Your task to perform on an android device: see creations saved in the google photos Image 0: 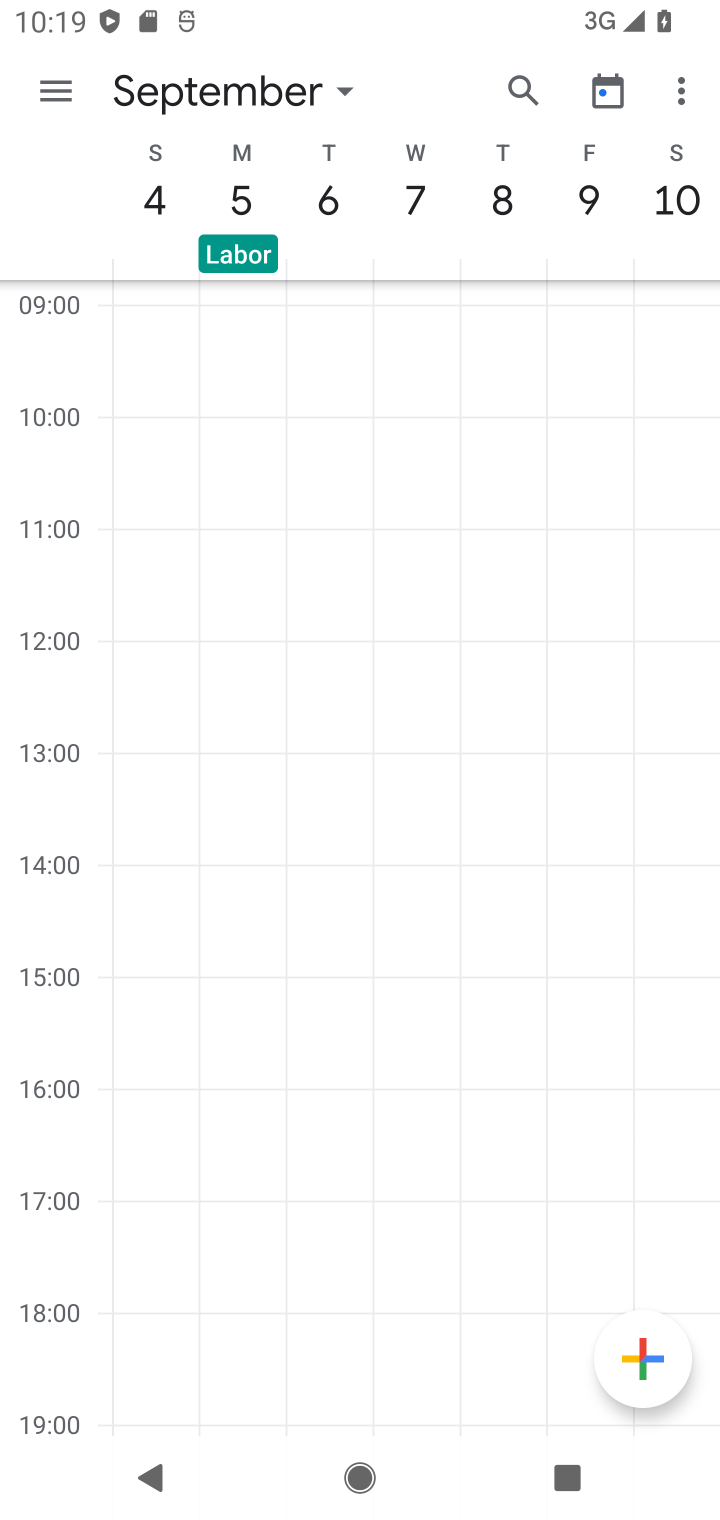
Step 0: press home button
Your task to perform on an android device: see creations saved in the google photos Image 1: 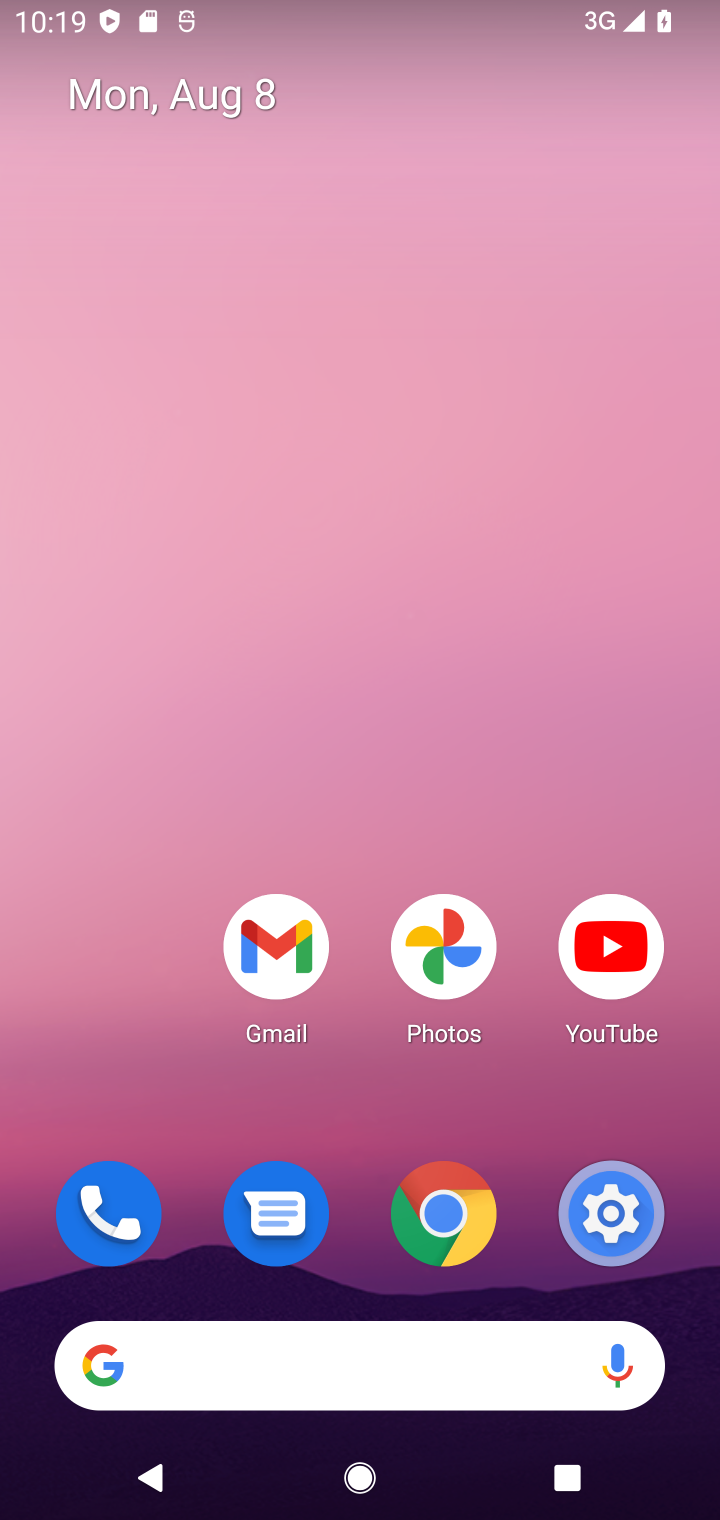
Step 1: drag from (449, 387) to (649, 85)
Your task to perform on an android device: see creations saved in the google photos Image 2: 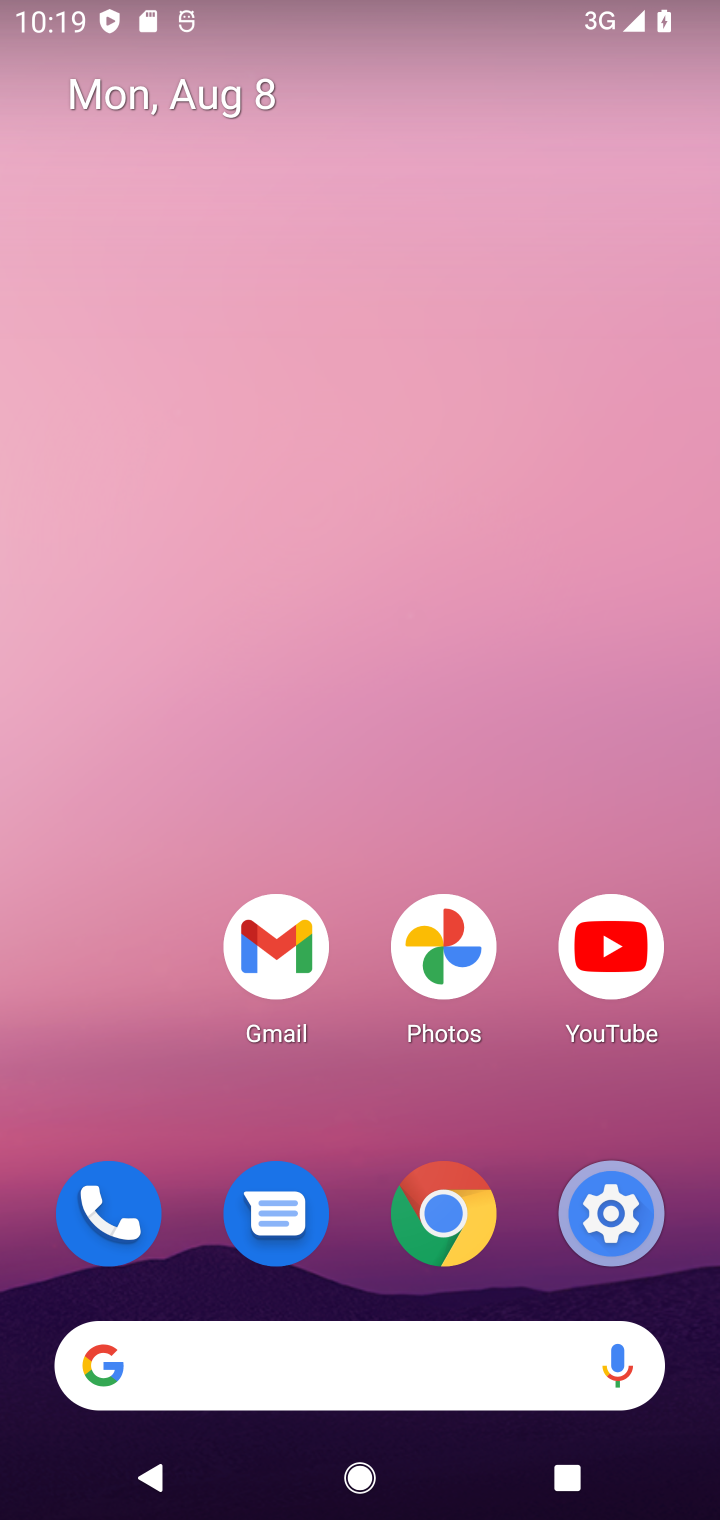
Step 2: click (443, 916)
Your task to perform on an android device: see creations saved in the google photos Image 3: 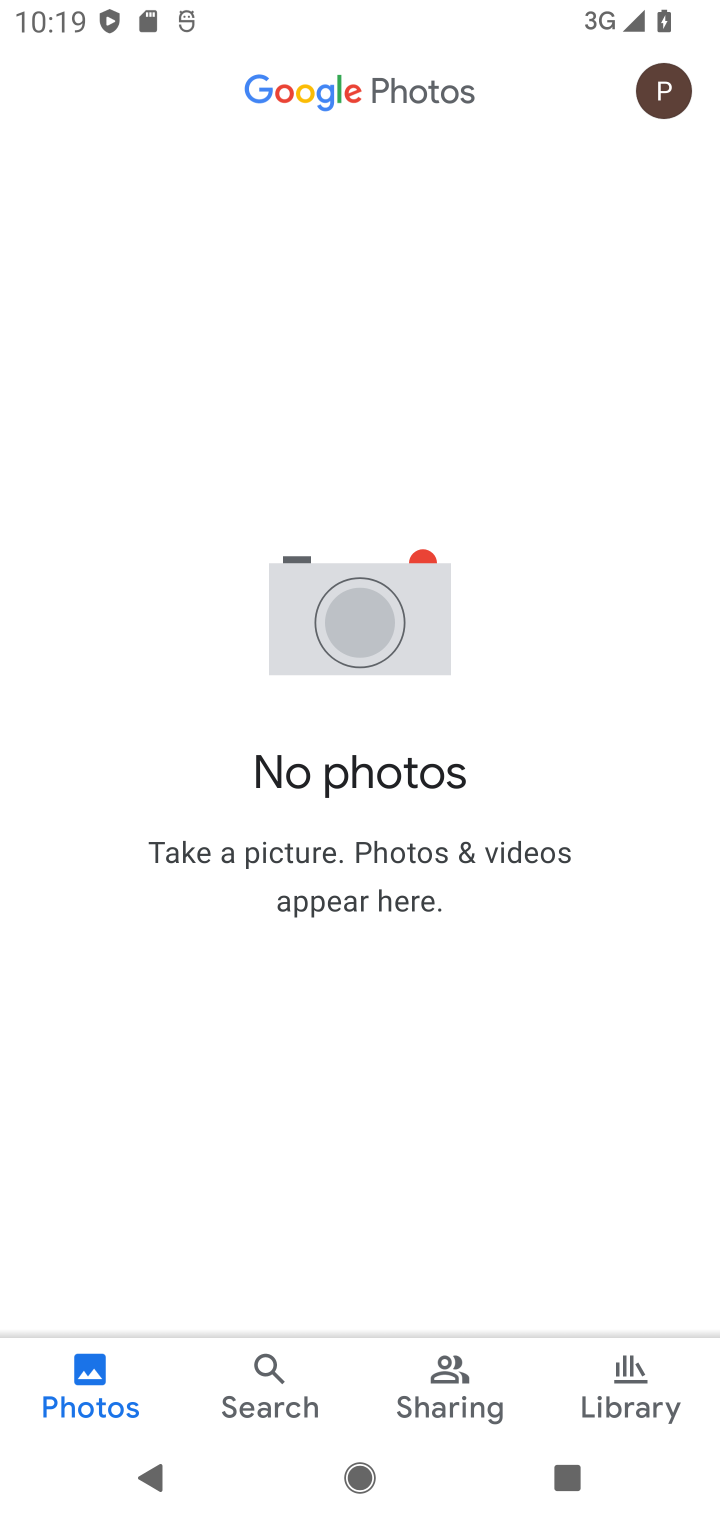
Step 3: click (648, 97)
Your task to perform on an android device: see creations saved in the google photos Image 4: 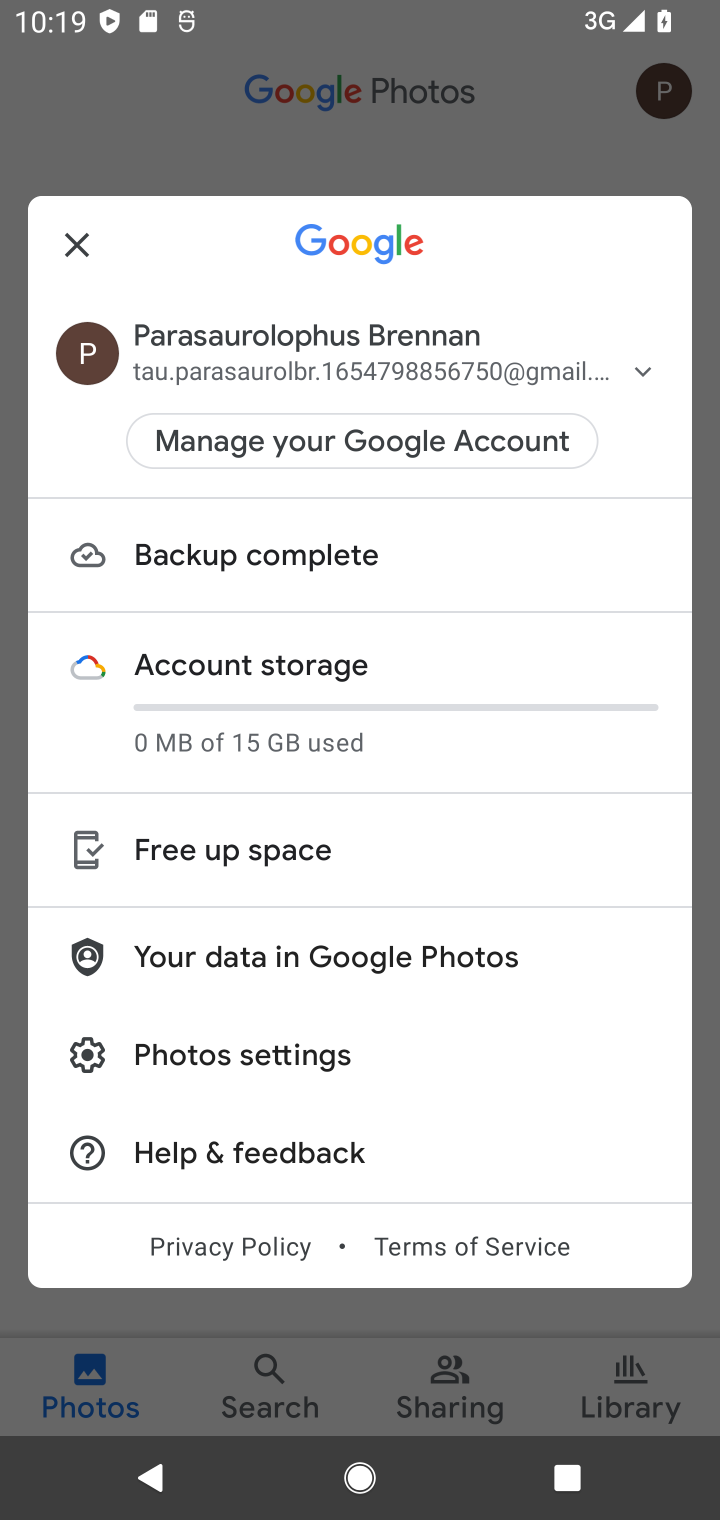
Step 4: press back button
Your task to perform on an android device: see creations saved in the google photos Image 5: 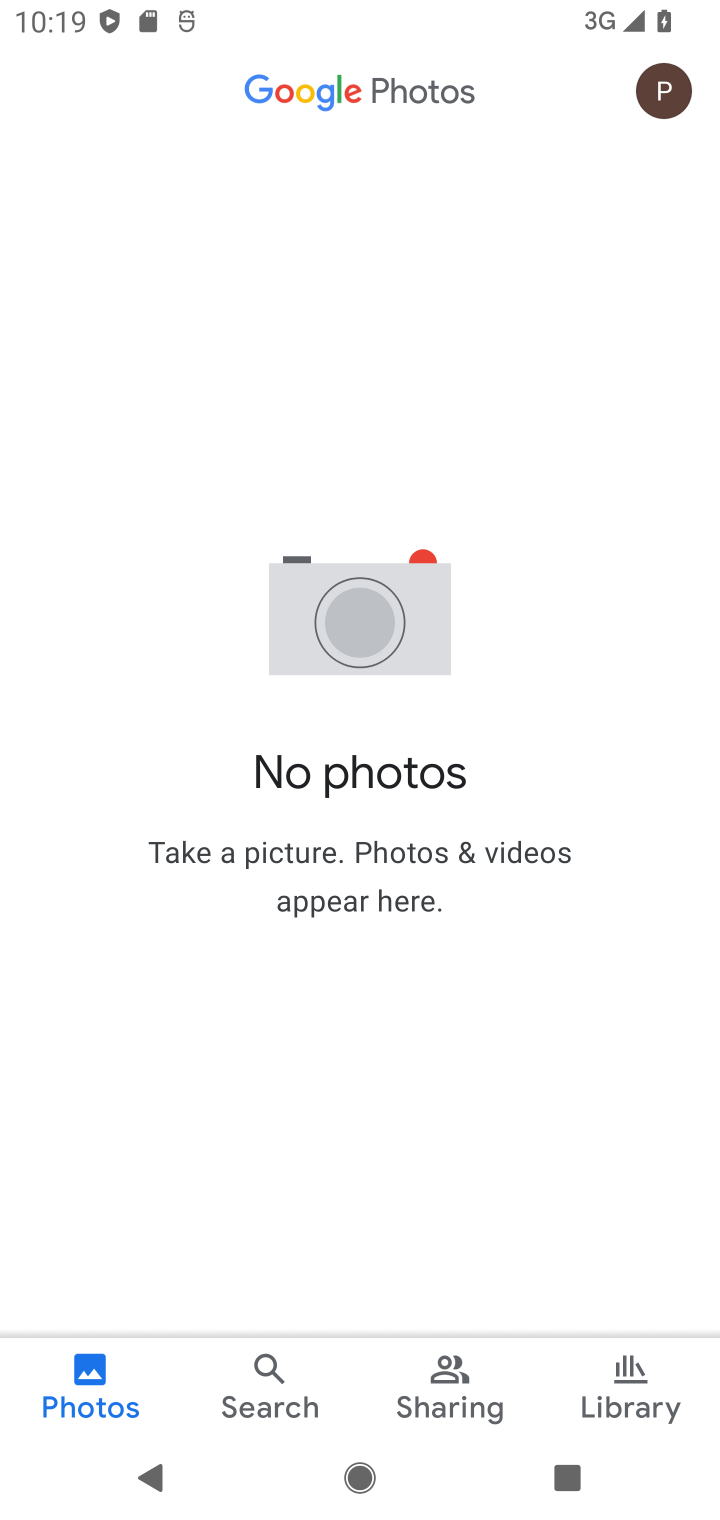
Step 5: drag from (141, 282) to (30, 1075)
Your task to perform on an android device: see creations saved in the google photos Image 6: 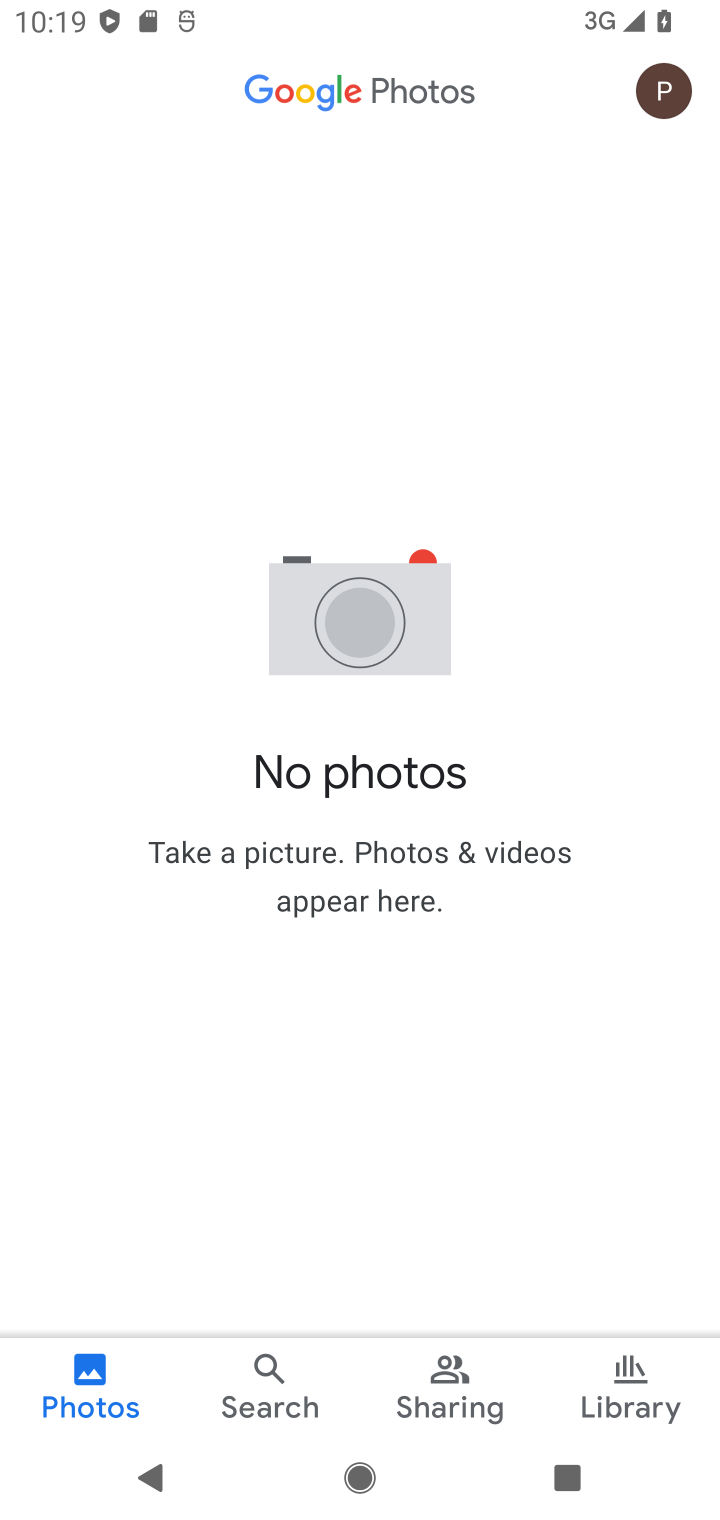
Step 6: click (275, 1393)
Your task to perform on an android device: see creations saved in the google photos Image 7: 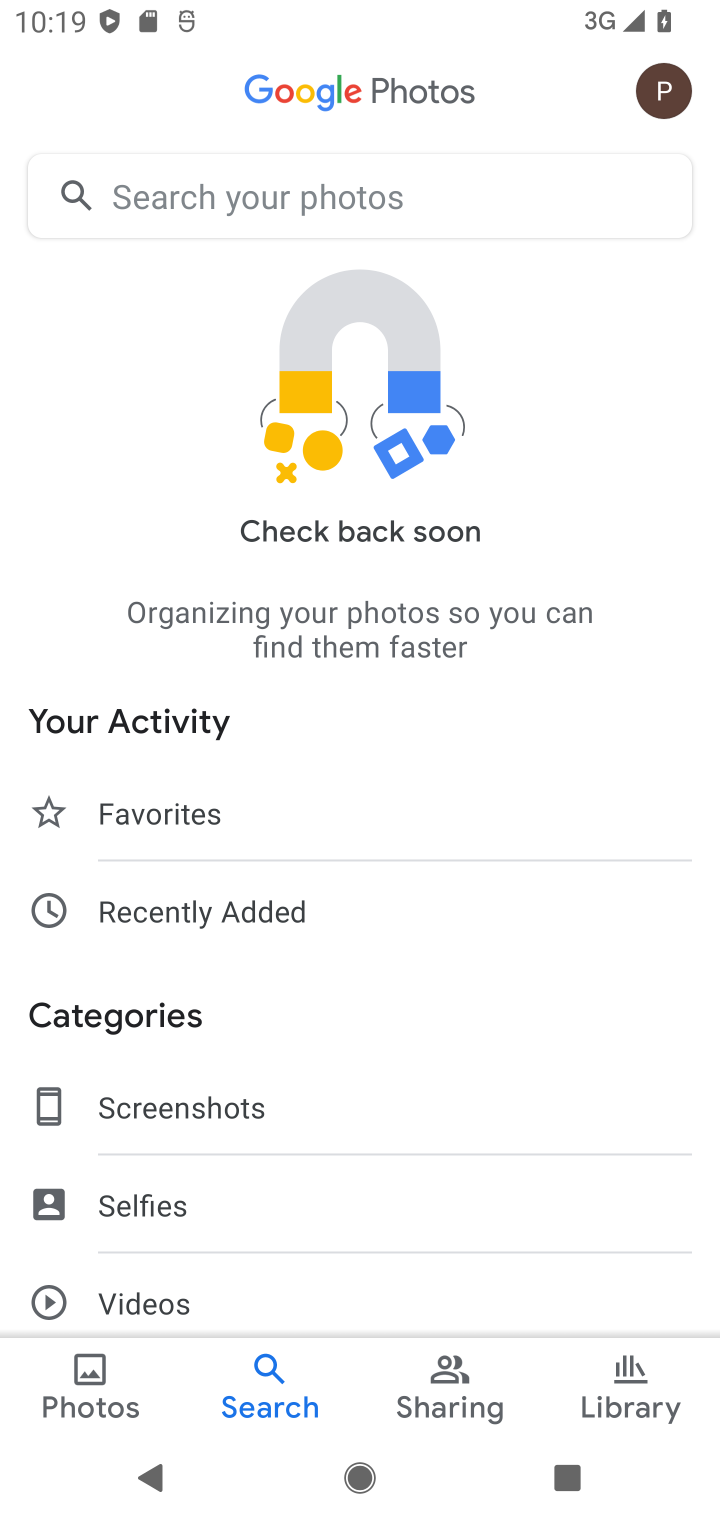
Step 7: drag from (16, 1313) to (387, 248)
Your task to perform on an android device: see creations saved in the google photos Image 8: 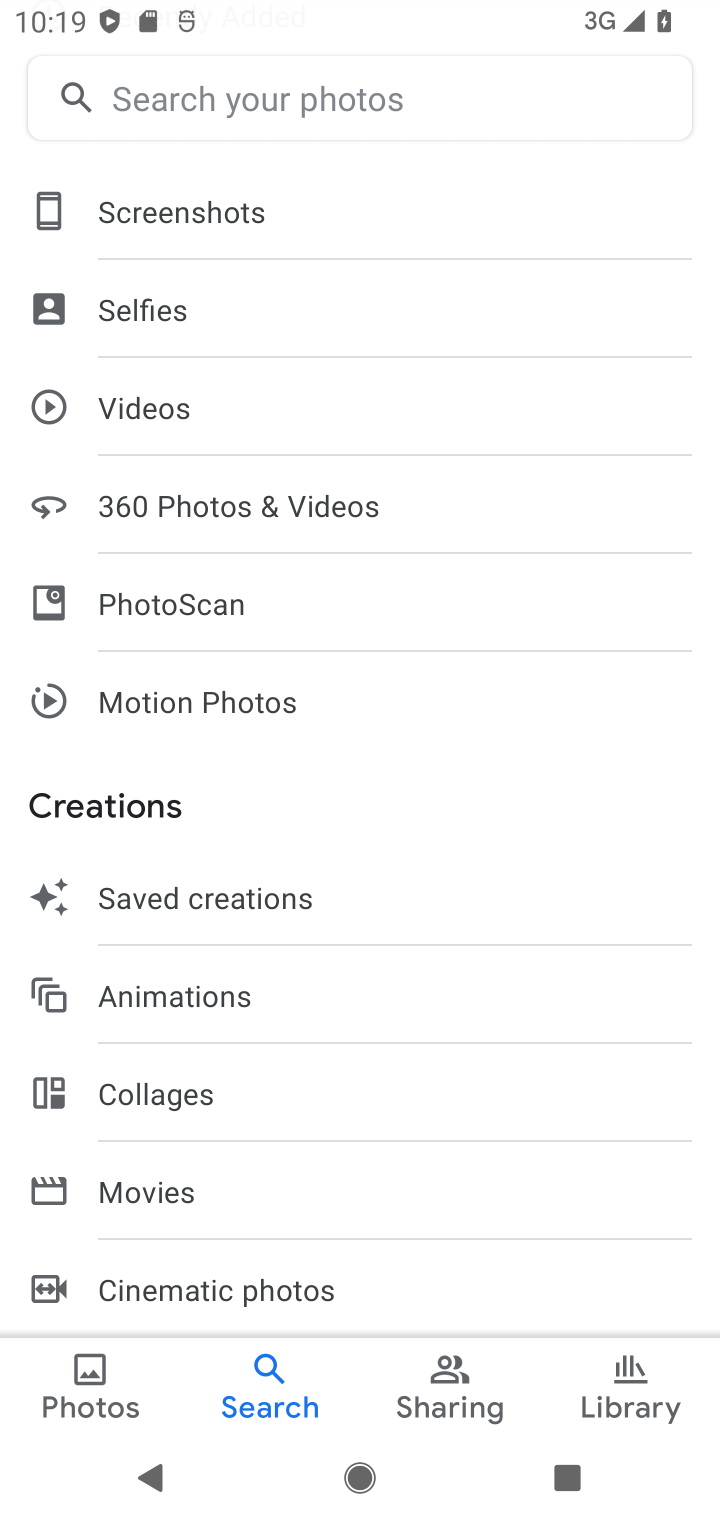
Step 8: drag from (7, 1183) to (437, 362)
Your task to perform on an android device: see creations saved in the google photos Image 9: 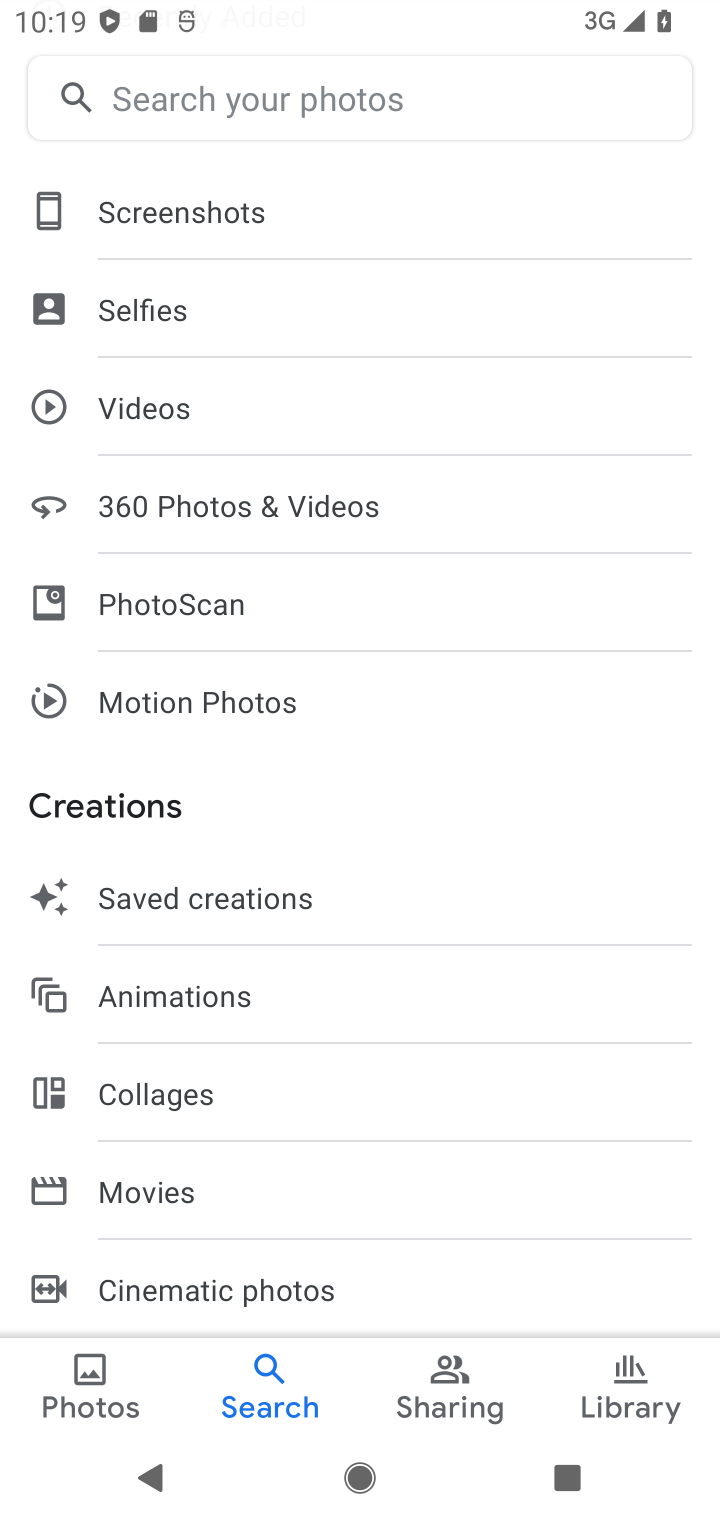
Step 9: click (245, 883)
Your task to perform on an android device: see creations saved in the google photos Image 10: 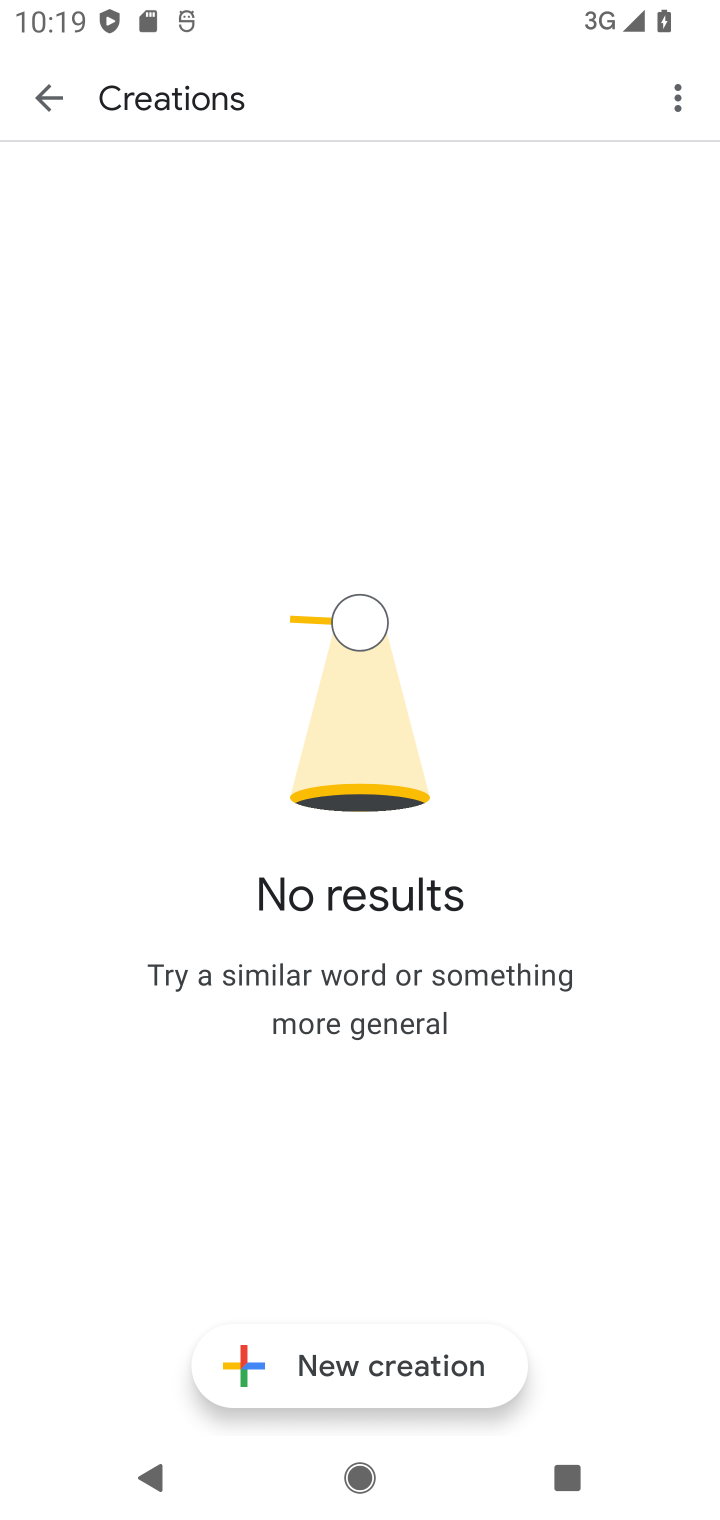
Step 10: task complete